Your task to perform on an android device: turn on sleep mode Image 0: 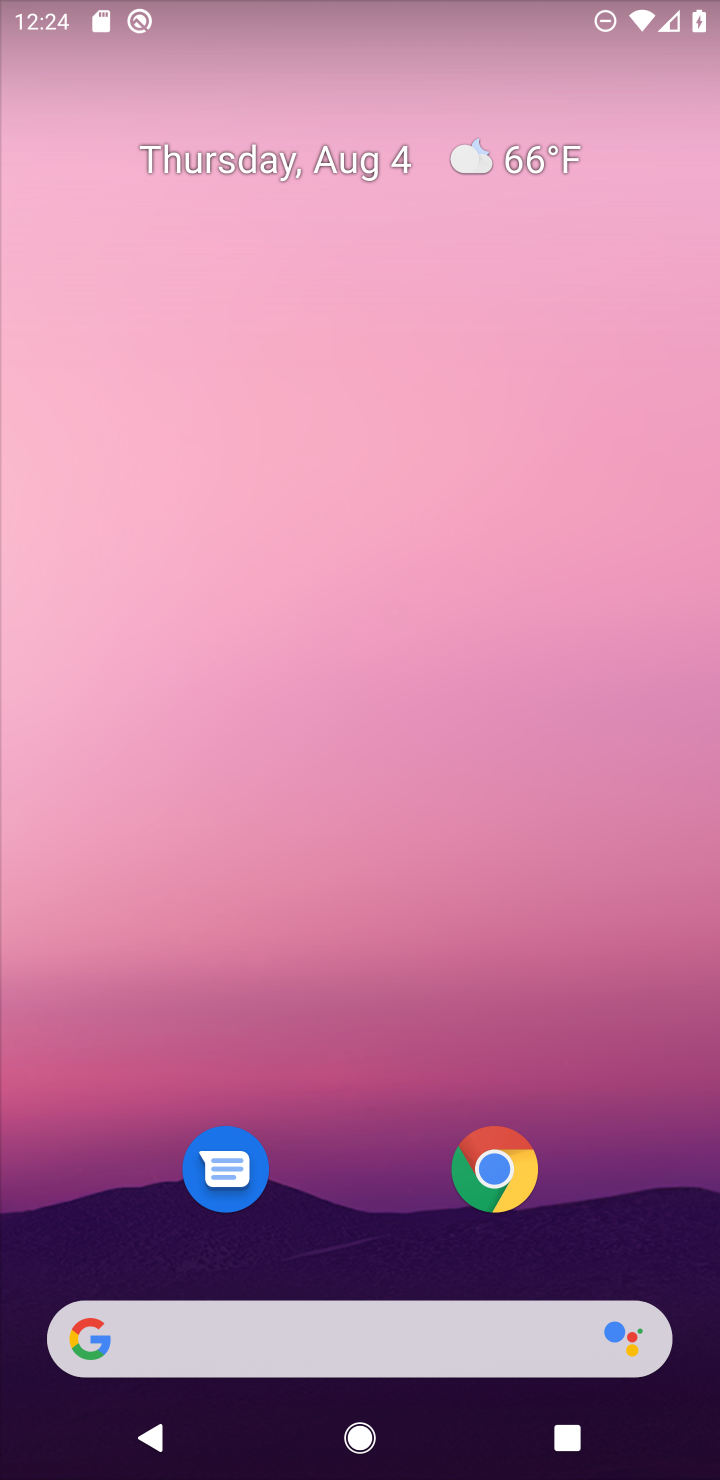
Step 0: drag from (333, 1290) to (454, 203)
Your task to perform on an android device: turn on sleep mode Image 1: 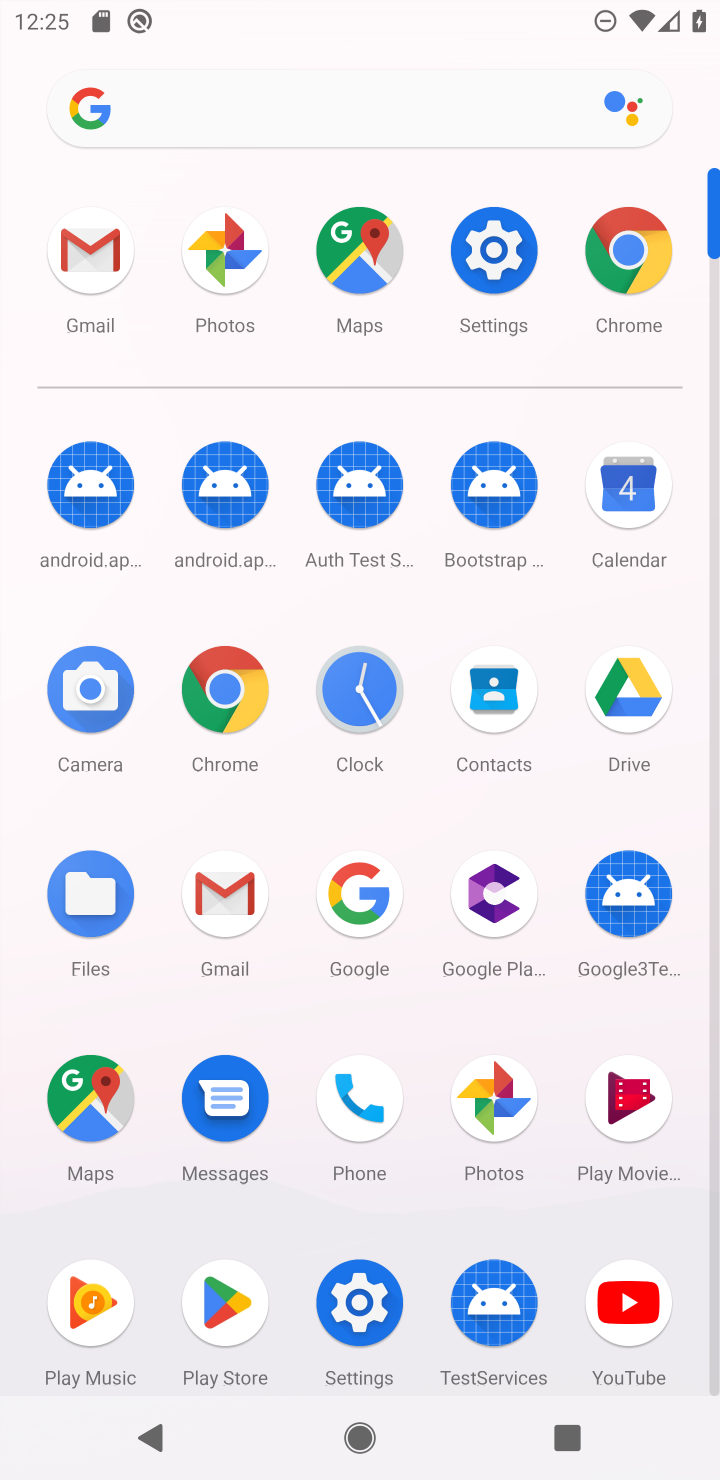
Step 1: click (480, 265)
Your task to perform on an android device: turn on sleep mode Image 2: 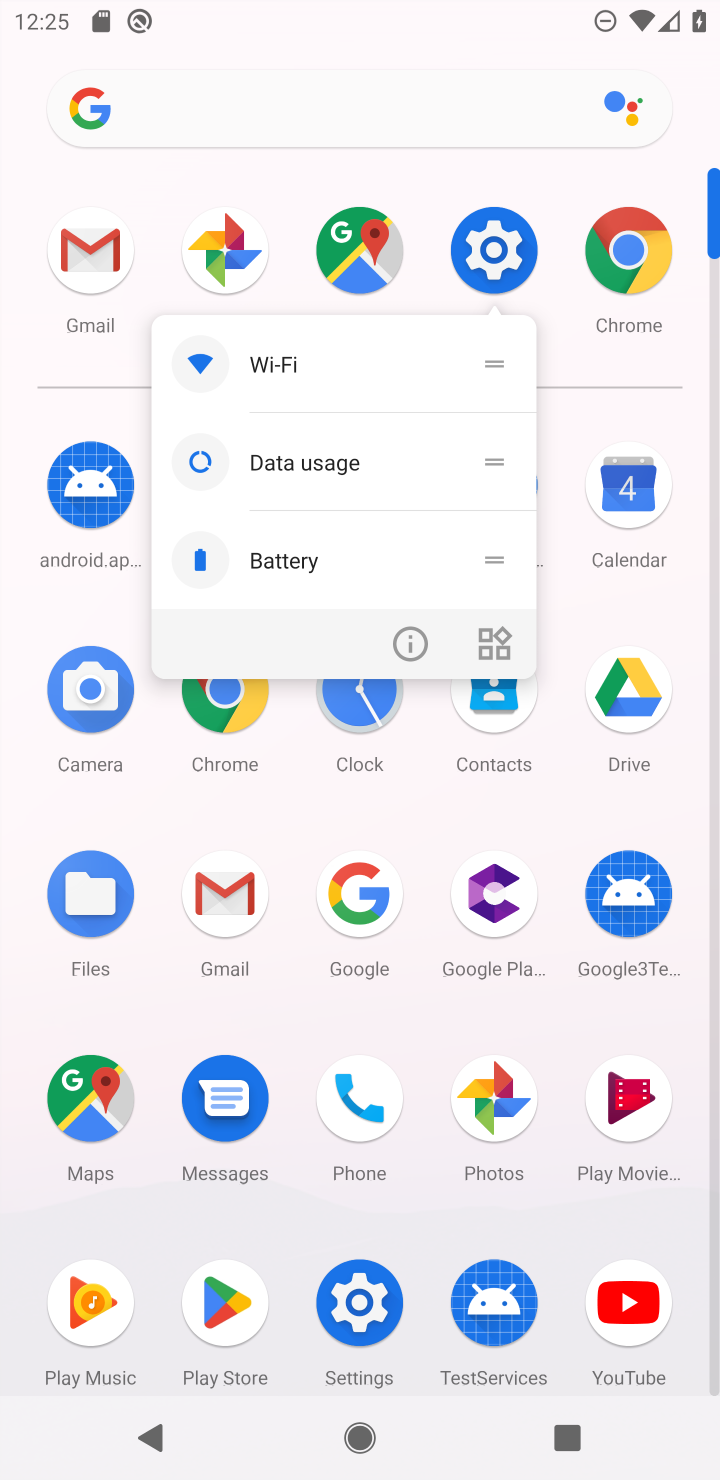
Step 2: click (493, 242)
Your task to perform on an android device: turn on sleep mode Image 3: 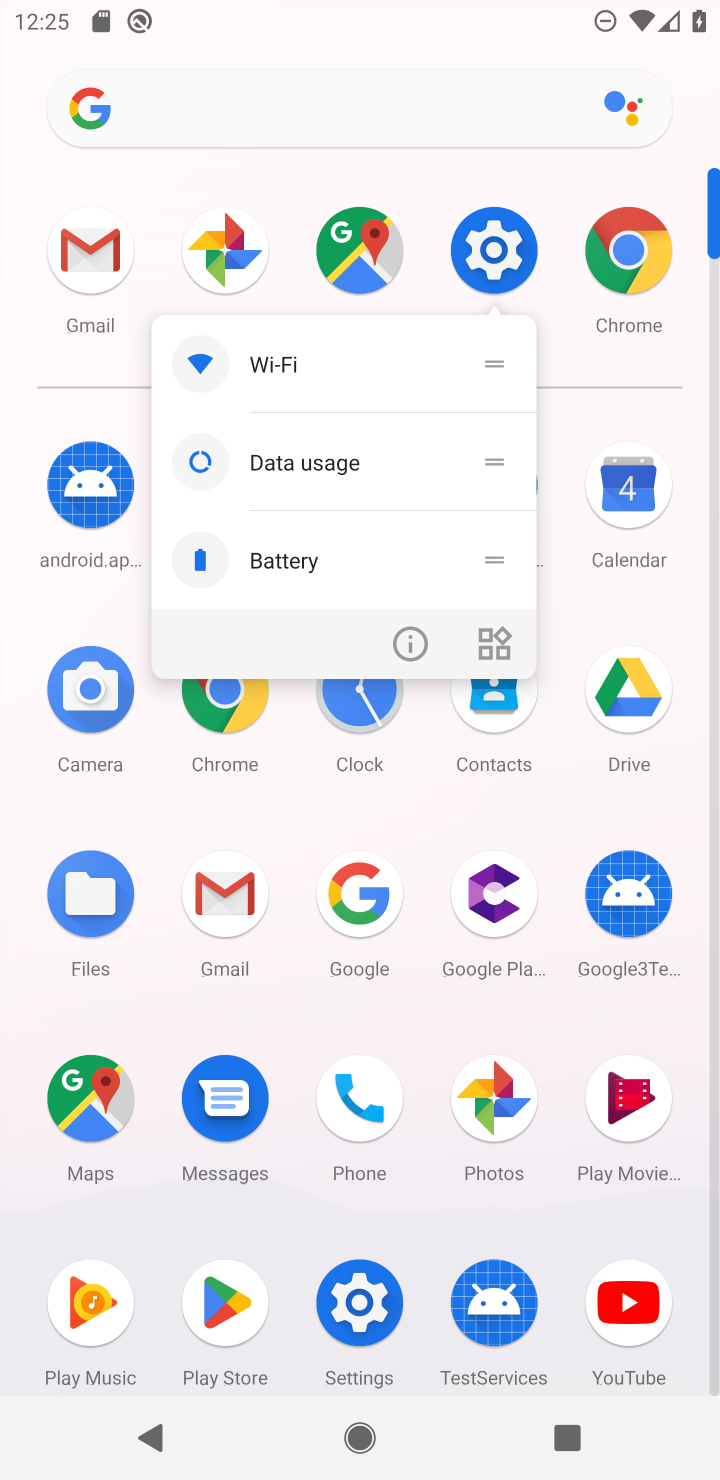
Step 3: click (493, 242)
Your task to perform on an android device: turn on sleep mode Image 4: 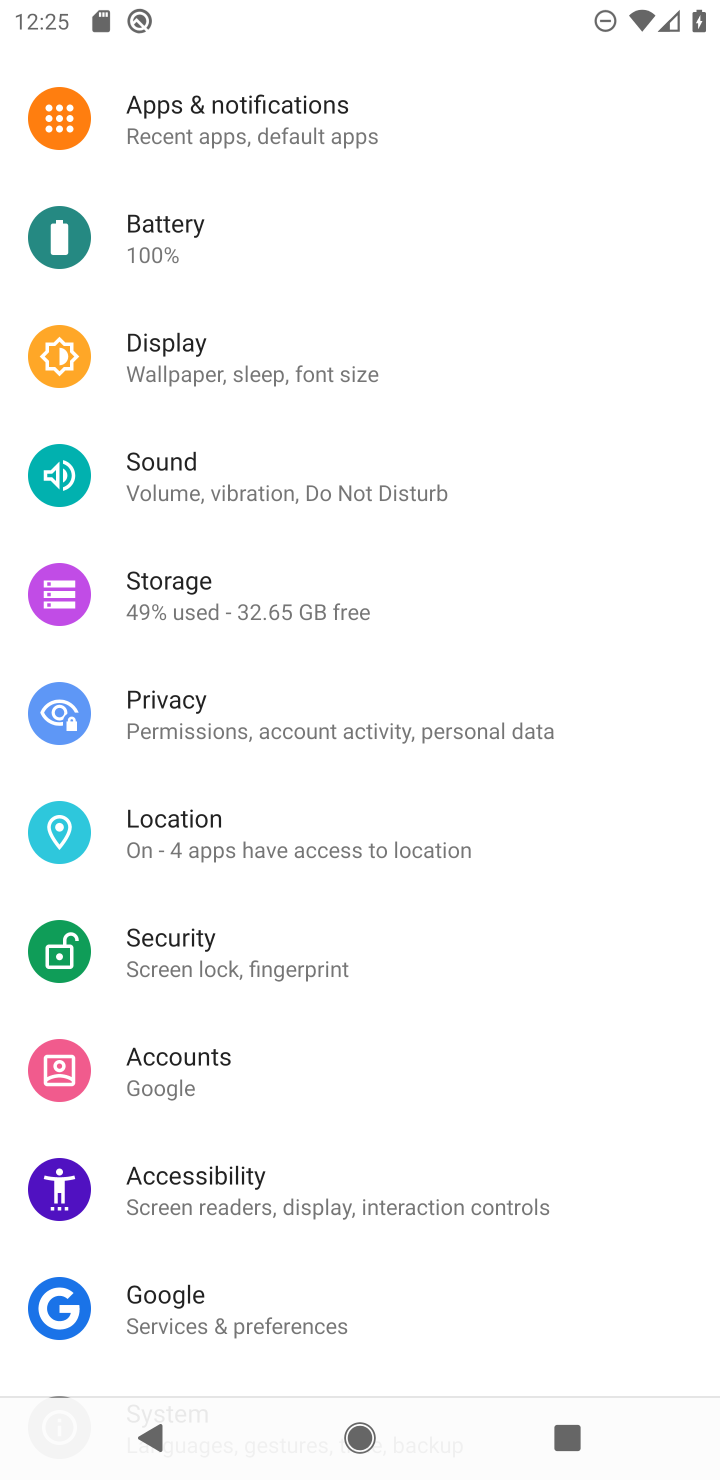
Step 4: click (169, 365)
Your task to perform on an android device: turn on sleep mode Image 5: 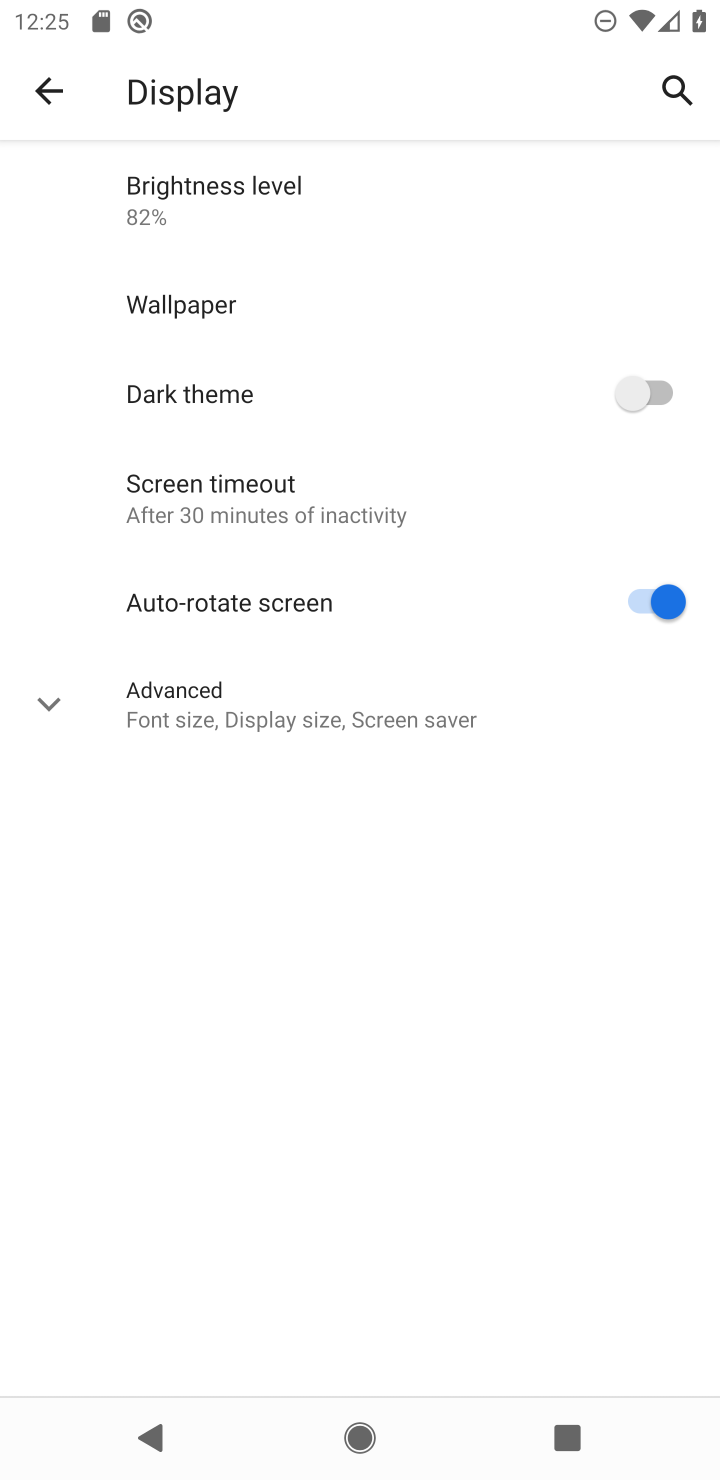
Step 5: click (43, 721)
Your task to perform on an android device: turn on sleep mode Image 6: 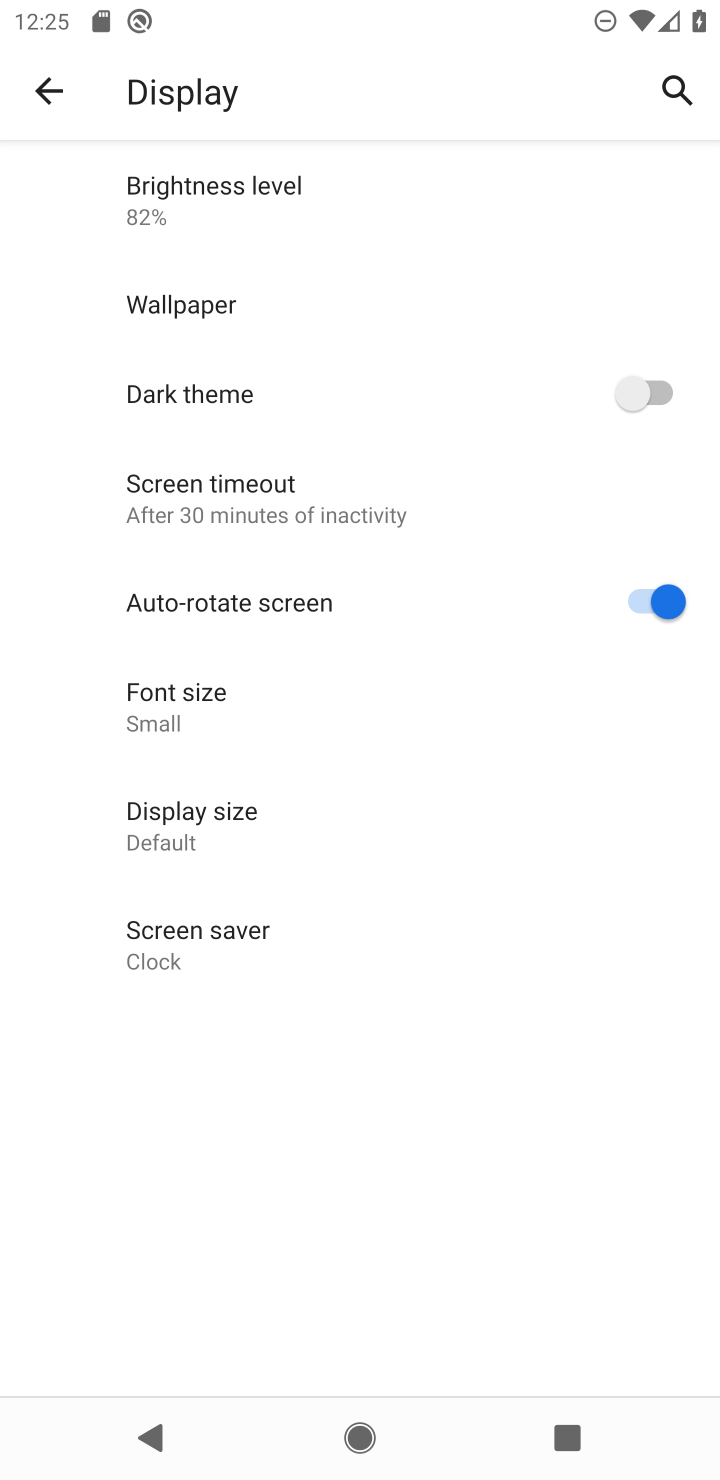
Step 6: task complete